Your task to perform on an android device: Open privacy settings Image 0: 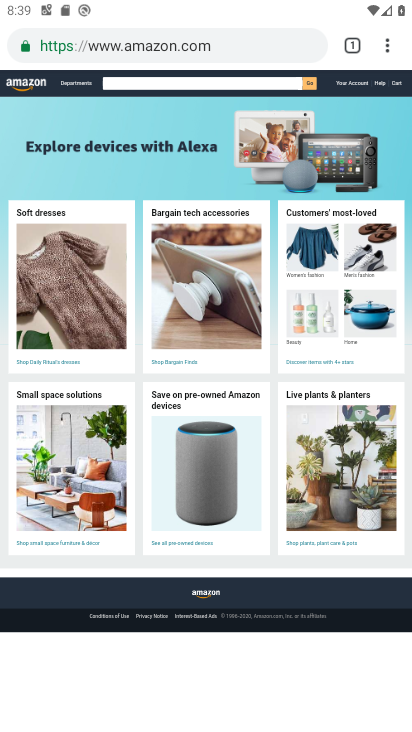
Step 0: press home button
Your task to perform on an android device: Open privacy settings Image 1: 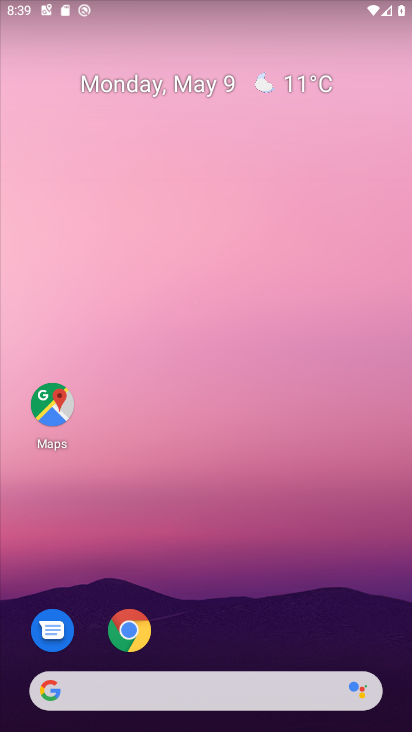
Step 1: drag from (277, 544) to (330, 40)
Your task to perform on an android device: Open privacy settings Image 2: 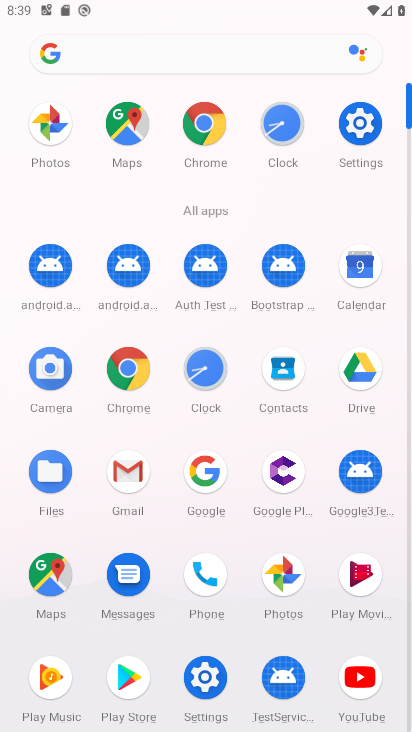
Step 2: click (362, 123)
Your task to perform on an android device: Open privacy settings Image 3: 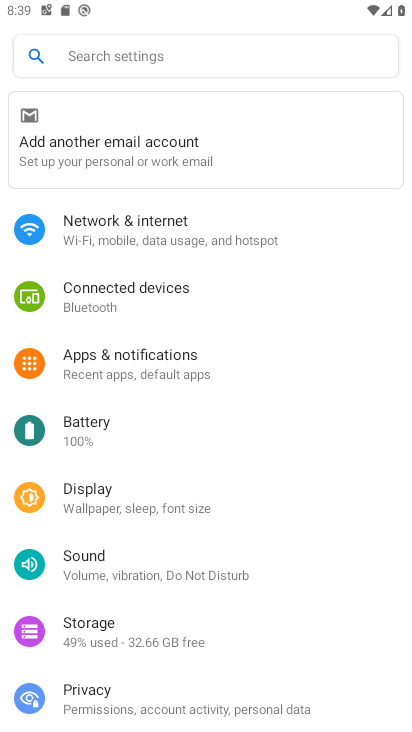
Step 3: click (102, 699)
Your task to perform on an android device: Open privacy settings Image 4: 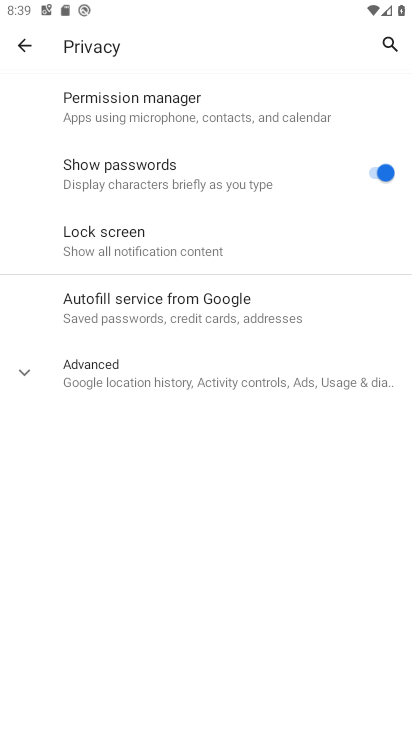
Step 4: task complete